Your task to perform on an android device: What's on my calendar today? Image 0: 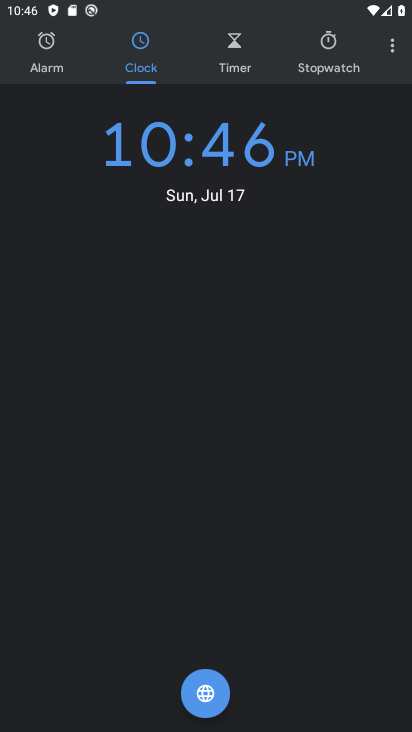
Step 0: press home button
Your task to perform on an android device: What's on my calendar today? Image 1: 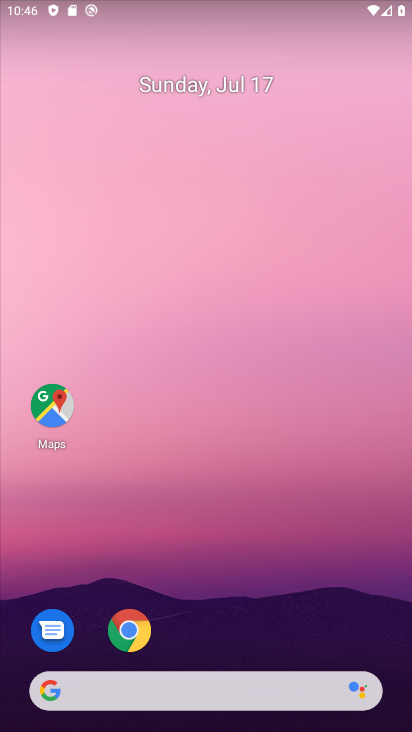
Step 1: drag from (230, 650) to (357, 464)
Your task to perform on an android device: What's on my calendar today? Image 2: 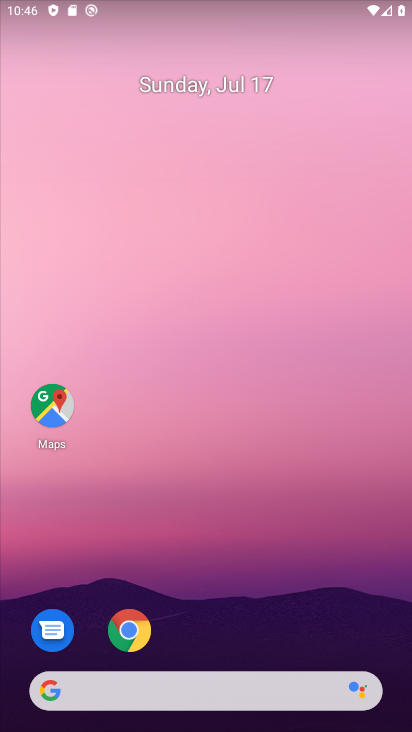
Step 2: drag from (241, 627) to (190, 32)
Your task to perform on an android device: What's on my calendar today? Image 3: 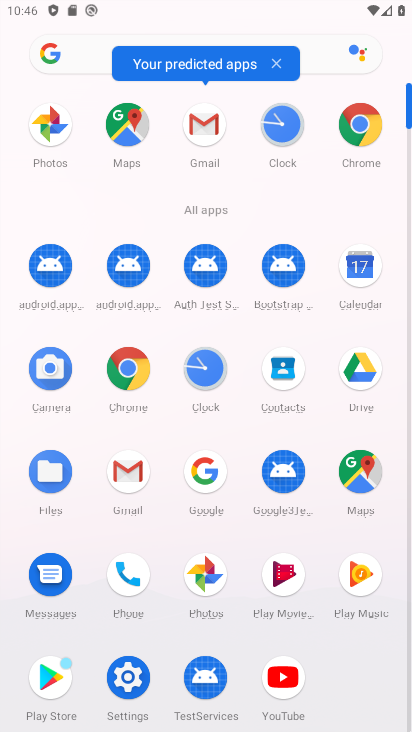
Step 3: click (362, 249)
Your task to perform on an android device: What's on my calendar today? Image 4: 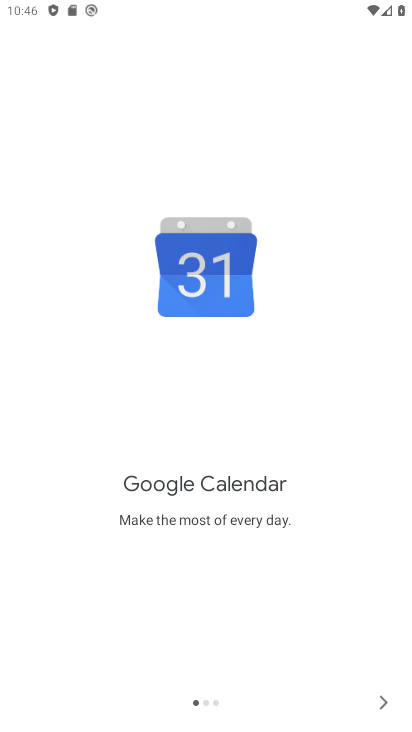
Step 4: click (385, 698)
Your task to perform on an android device: What's on my calendar today? Image 5: 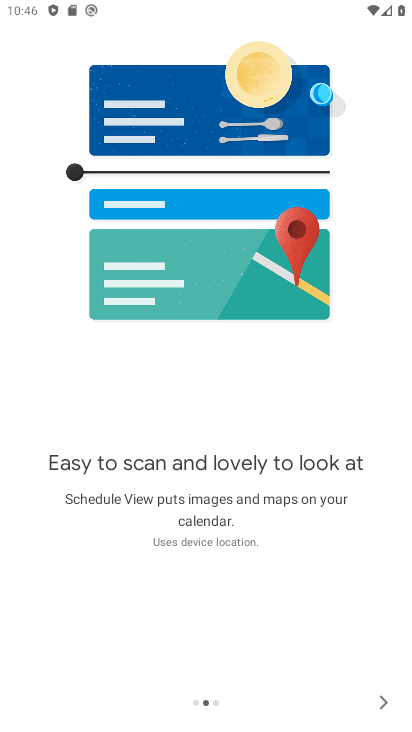
Step 5: click (383, 690)
Your task to perform on an android device: What's on my calendar today? Image 6: 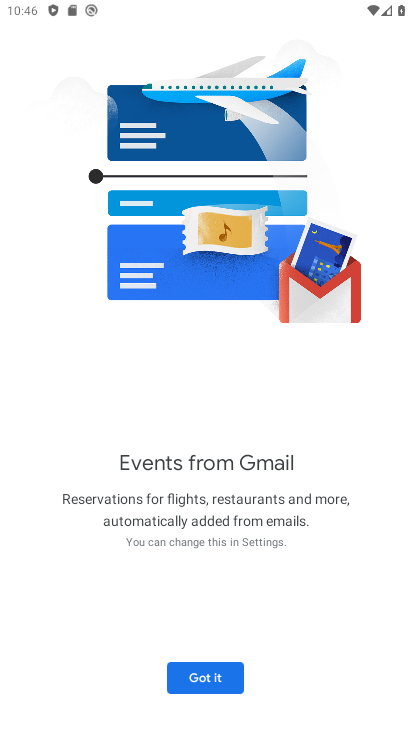
Step 6: click (214, 677)
Your task to perform on an android device: What's on my calendar today? Image 7: 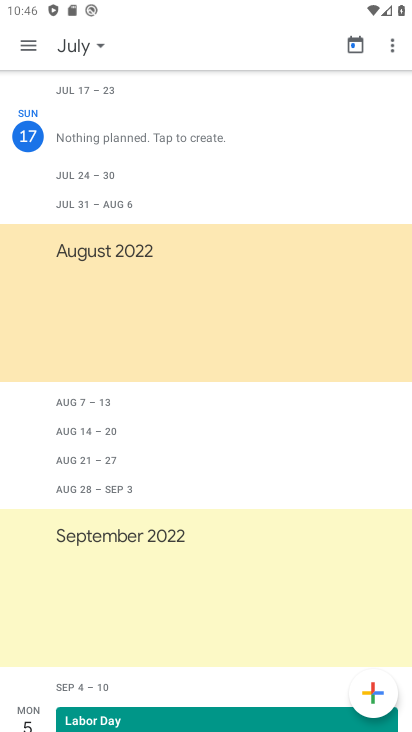
Step 7: click (25, 123)
Your task to perform on an android device: What's on my calendar today? Image 8: 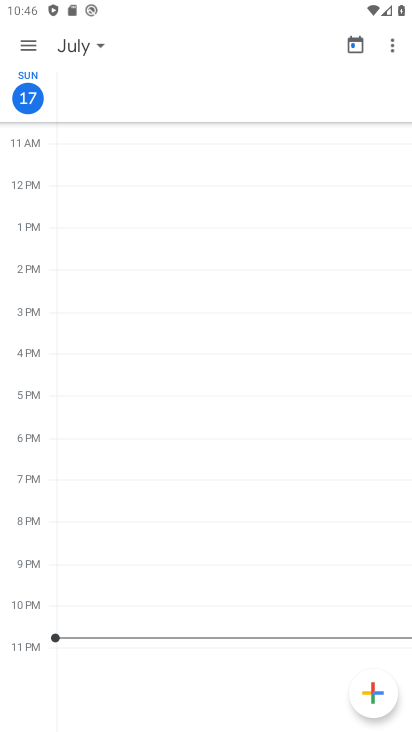
Step 8: task complete